Your task to perform on an android device: Open Google Maps Image 0: 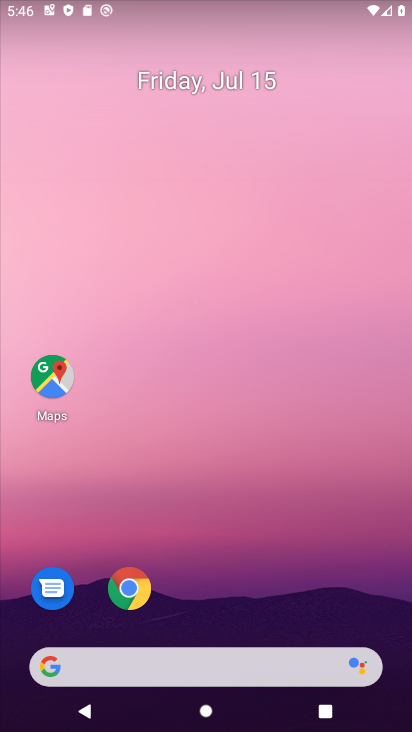
Step 0: drag from (332, 658) to (326, 0)
Your task to perform on an android device: Open Google Maps Image 1: 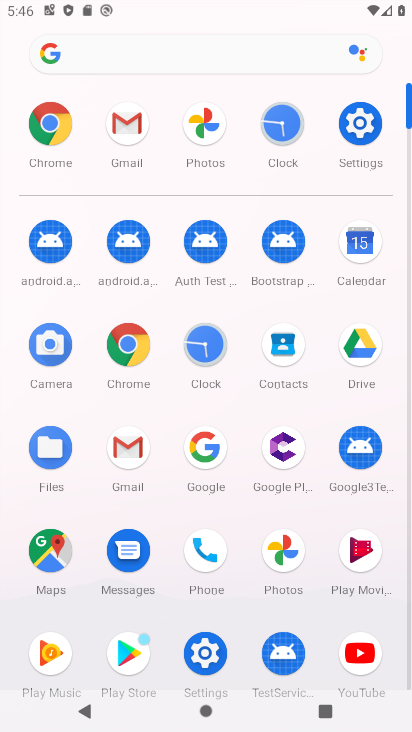
Step 1: click (37, 553)
Your task to perform on an android device: Open Google Maps Image 2: 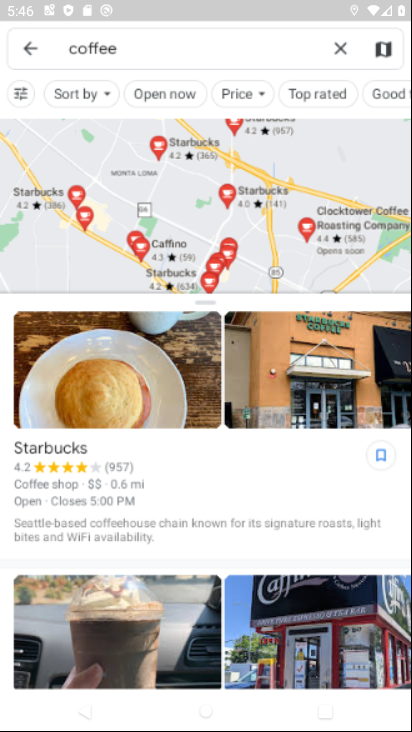
Step 2: task complete